Your task to perform on an android device: search for starred emails in the gmail app Image 0: 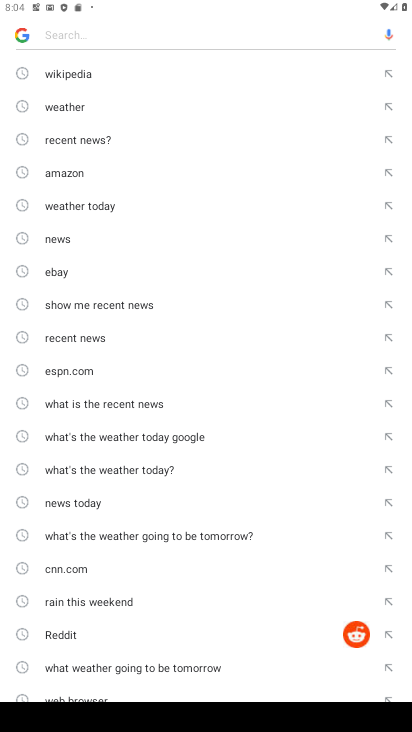
Step 0: press home button
Your task to perform on an android device: search for starred emails in the gmail app Image 1: 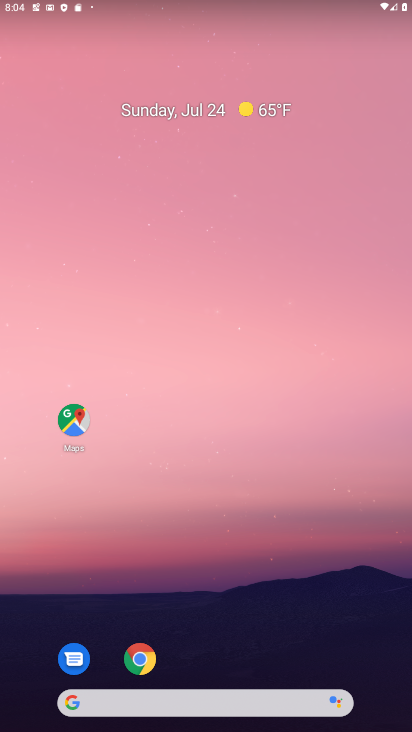
Step 1: drag from (233, 676) to (196, 8)
Your task to perform on an android device: search for starred emails in the gmail app Image 2: 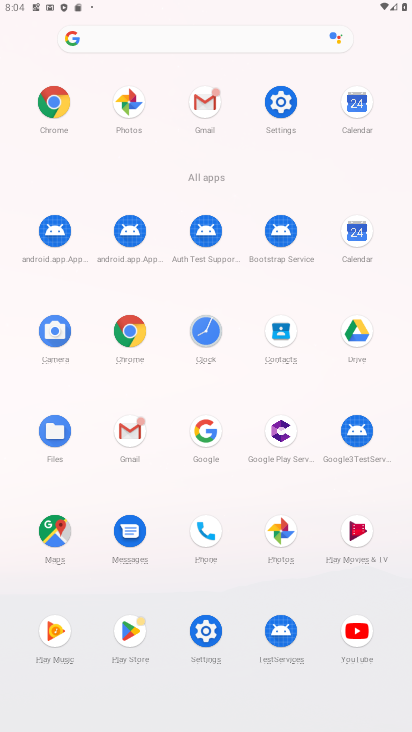
Step 2: click (209, 105)
Your task to perform on an android device: search for starred emails in the gmail app Image 3: 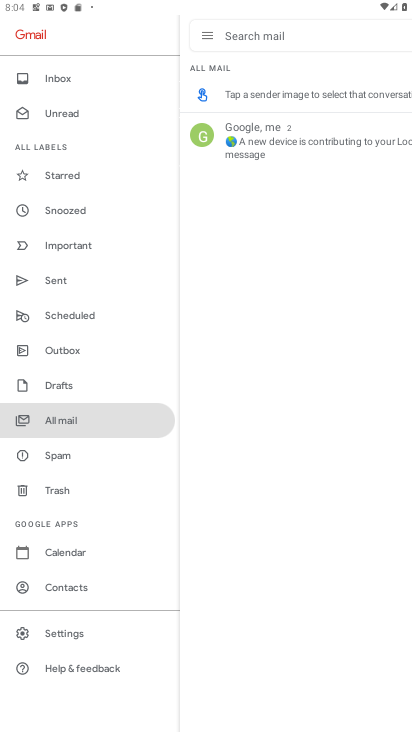
Step 3: click (52, 180)
Your task to perform on an android device: search for starred emails in the gmail app Image 4: 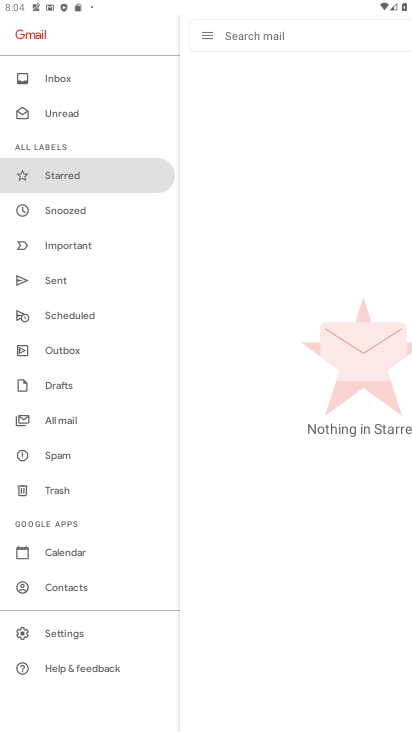
Step 4: task complete